Your task to perform on an android device: toggle pop-ups in chrome Image 0: 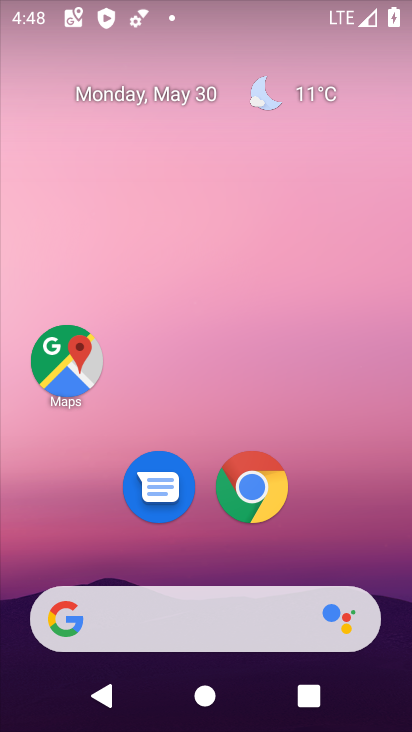
Step 0: click (255, 487)
Your task to perform on an android device: toggle pop-ups in chrome Image 1: 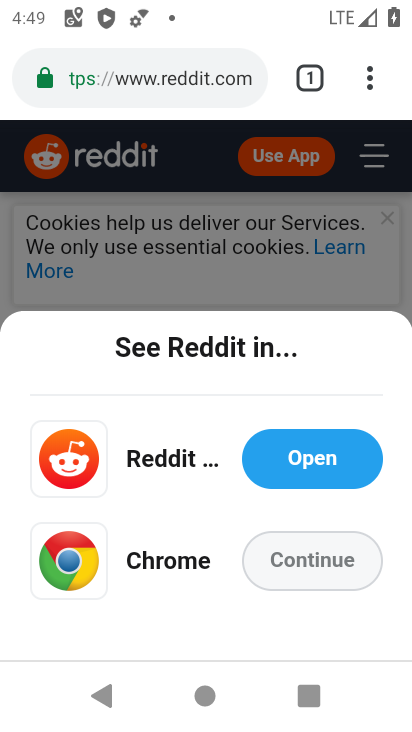
Step 1: click (371, 86)
Your task to perform on an android device: toggle pop-ups in chrome Image 2: 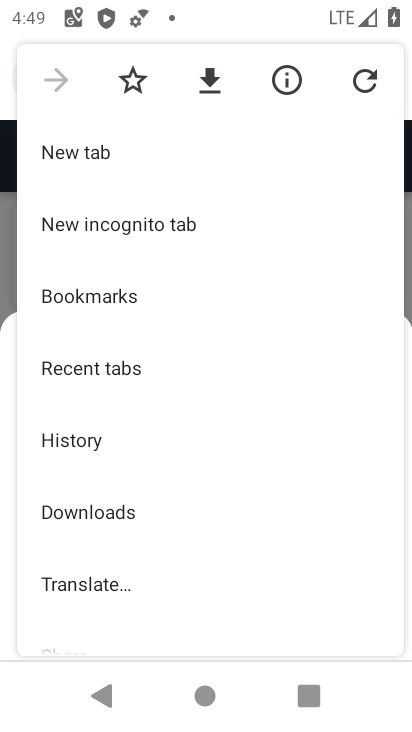
Step 2: drag from (214, 523) to (223, 206)
Your task to perform on an android device: toggle pop-ups in chrome Image 3: 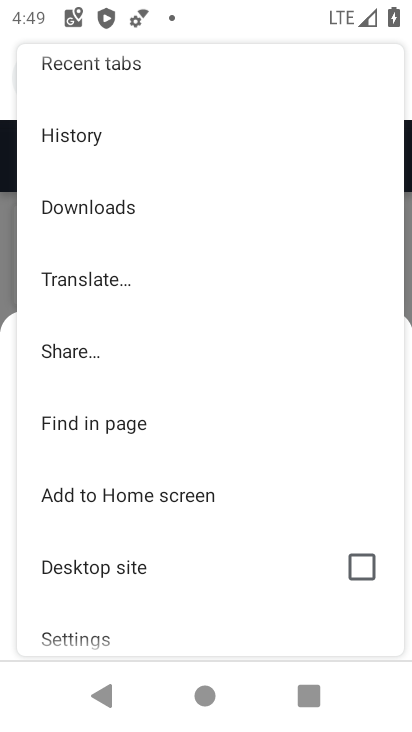
Step 3: drag from (175, 589) to (209, 197)
Your task to perform on an android device: toggle pop-ups in chrome Image 4: 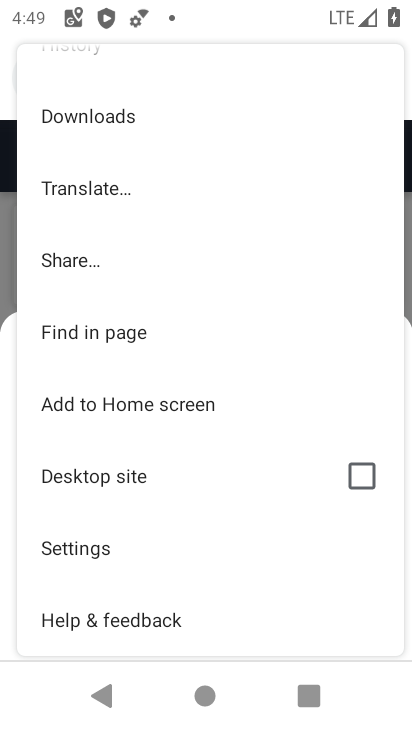
Step 4: click (92, 549)
Your task to perform on an android device: toggle pop-ups in chrome Image 5: 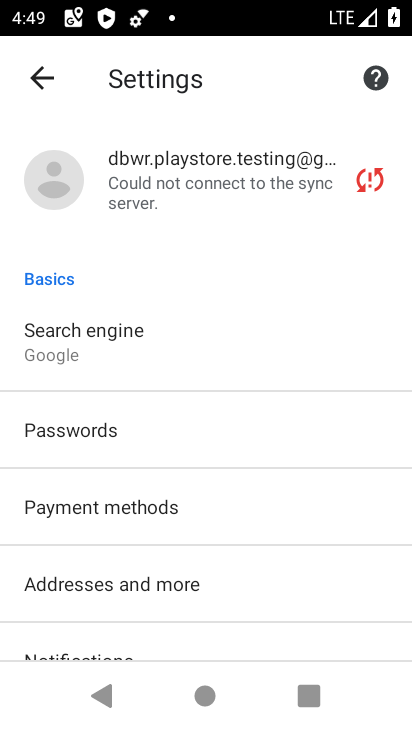
Step 5: drag from (283, 594) to (272, 143)
Your task to perform on an android device: toggle pop-ups in chrome Image 6: 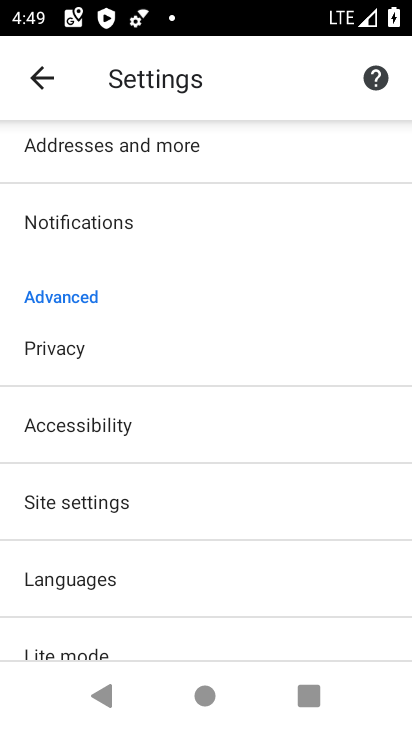
Step 6: drag from (173, 558) to (219, 202)
Your task to perform on an android device: toggle pop-ups in chrome Image 7: 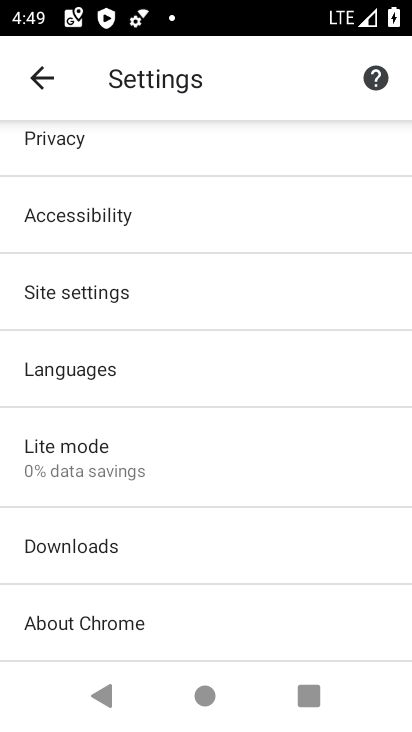
Step 7: click (104, 298)
Your task to perform on an android device: toggle pop-ups in chrome Image 8: 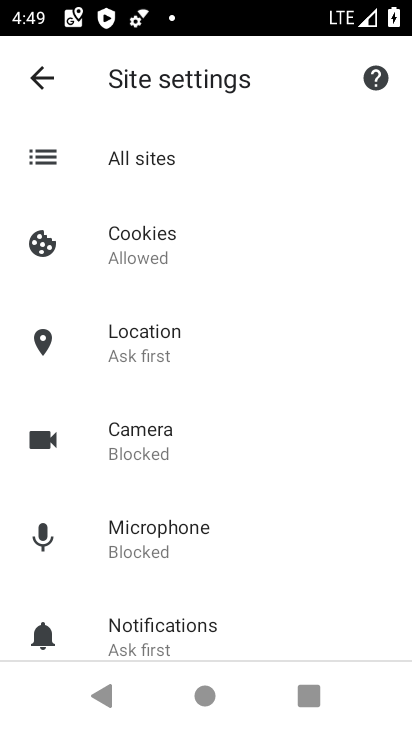
Step 8: drag from (269, 609) to (268, 236)
Your task to perform on an android device: toggle pop-ups in chrome Image 9: 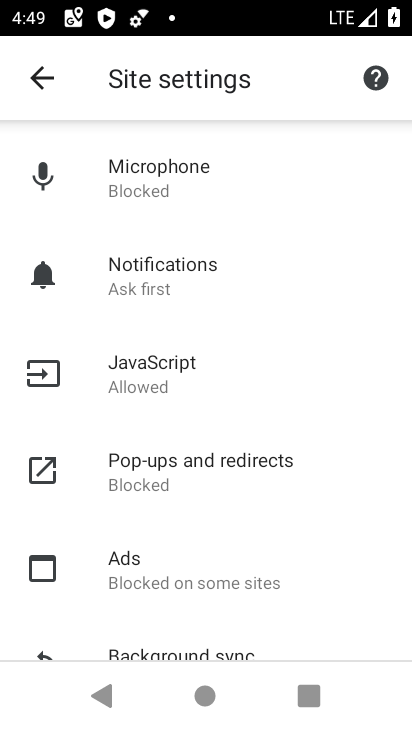
Step 9: click (144, 460)
Your task to perform on an android device: toggle pop-ups in chrome Image 10: 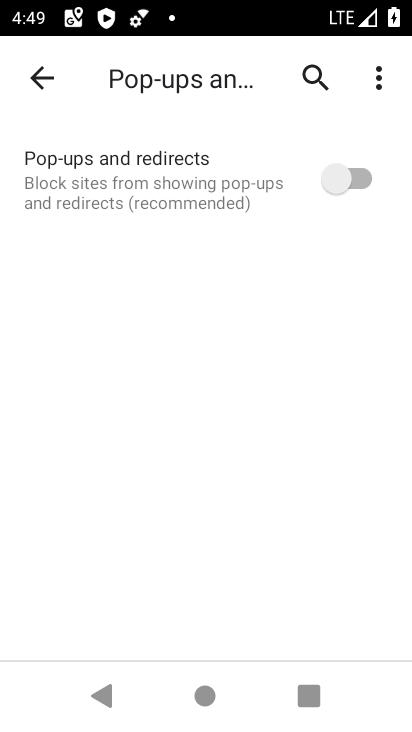
Step 10: click (358, 179)
Your task to perform on an android device: toggle pop-ups in chrome Image 11: 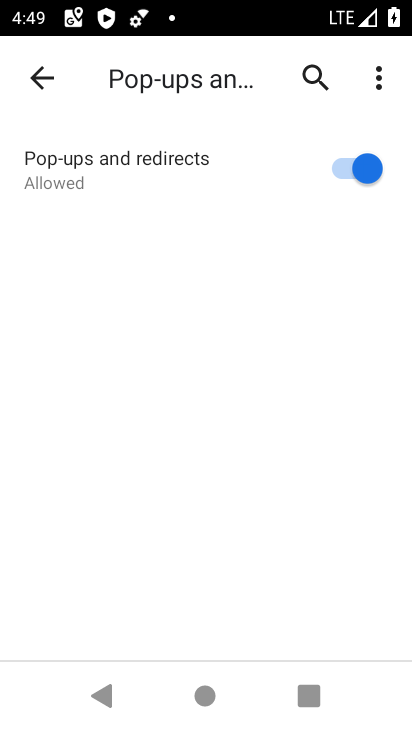
Step 11: task complete